Your task to perform on an android device: Open the calendar app, open the side menu, and click the "Day" option Image 0: 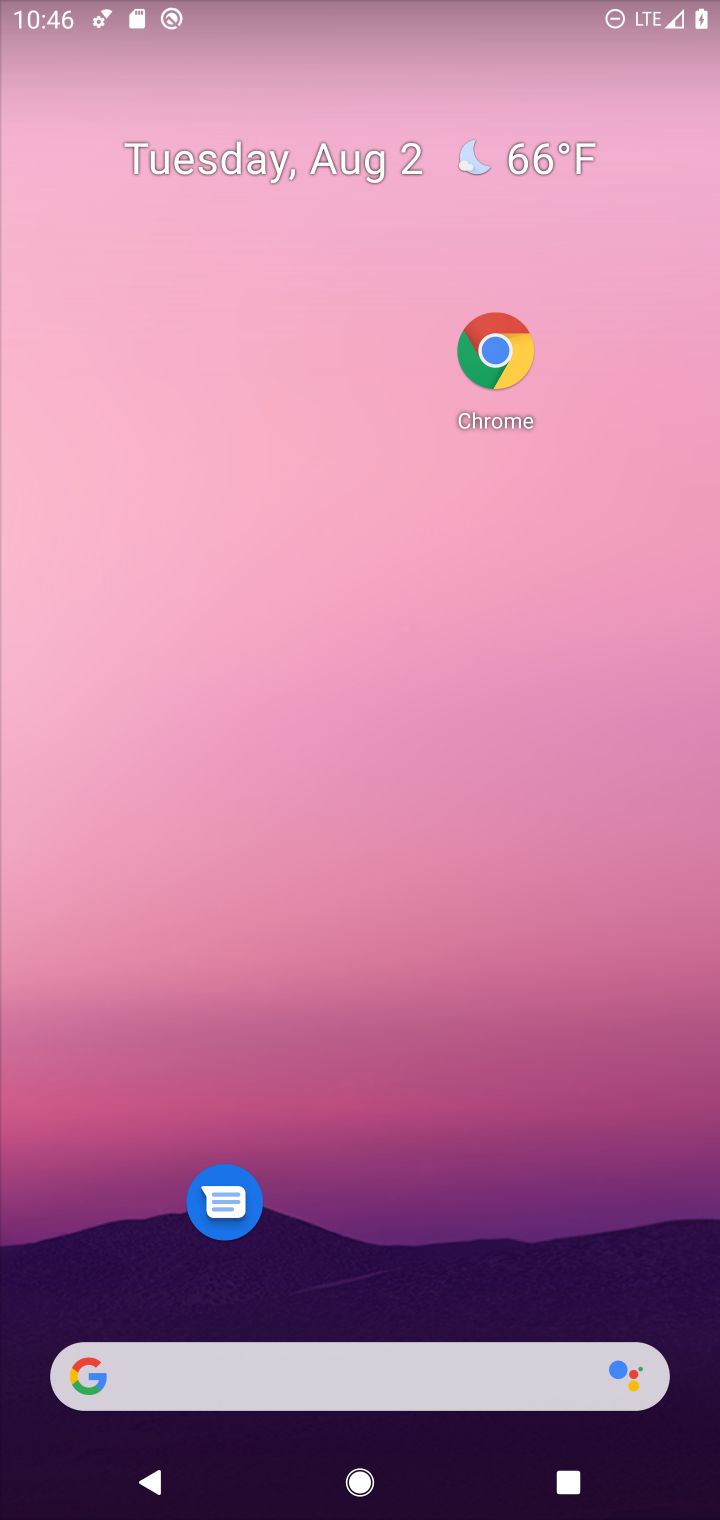
Step 0: drag from (473, 1259) to (347, 5)
Your task to perform on an android device: Open the calendar app, open the side menu, and click the "Day" option Image 1: 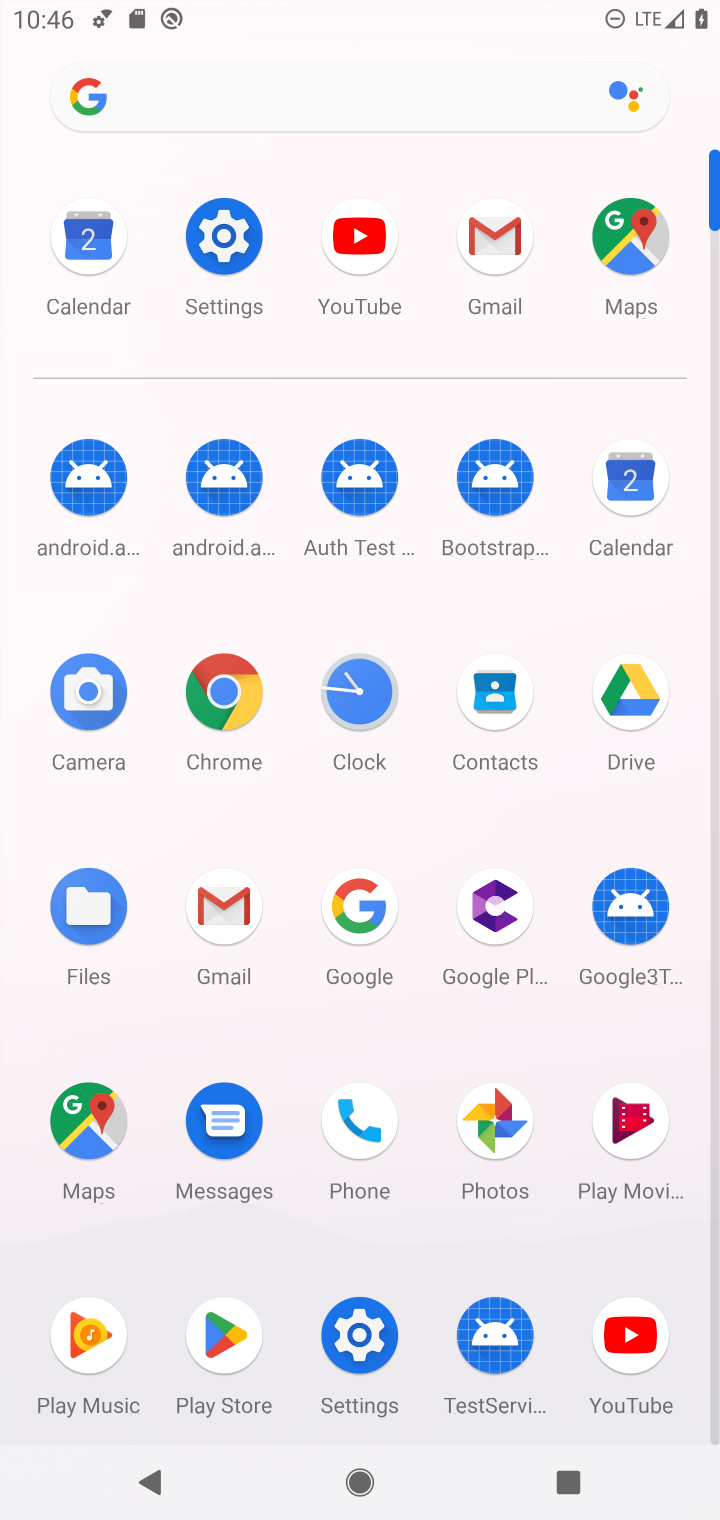
Step 1: click (637, 479)
Your task to perform on an android device: Open the calendar app, open the side menu, and click the "Day" option Image 2: 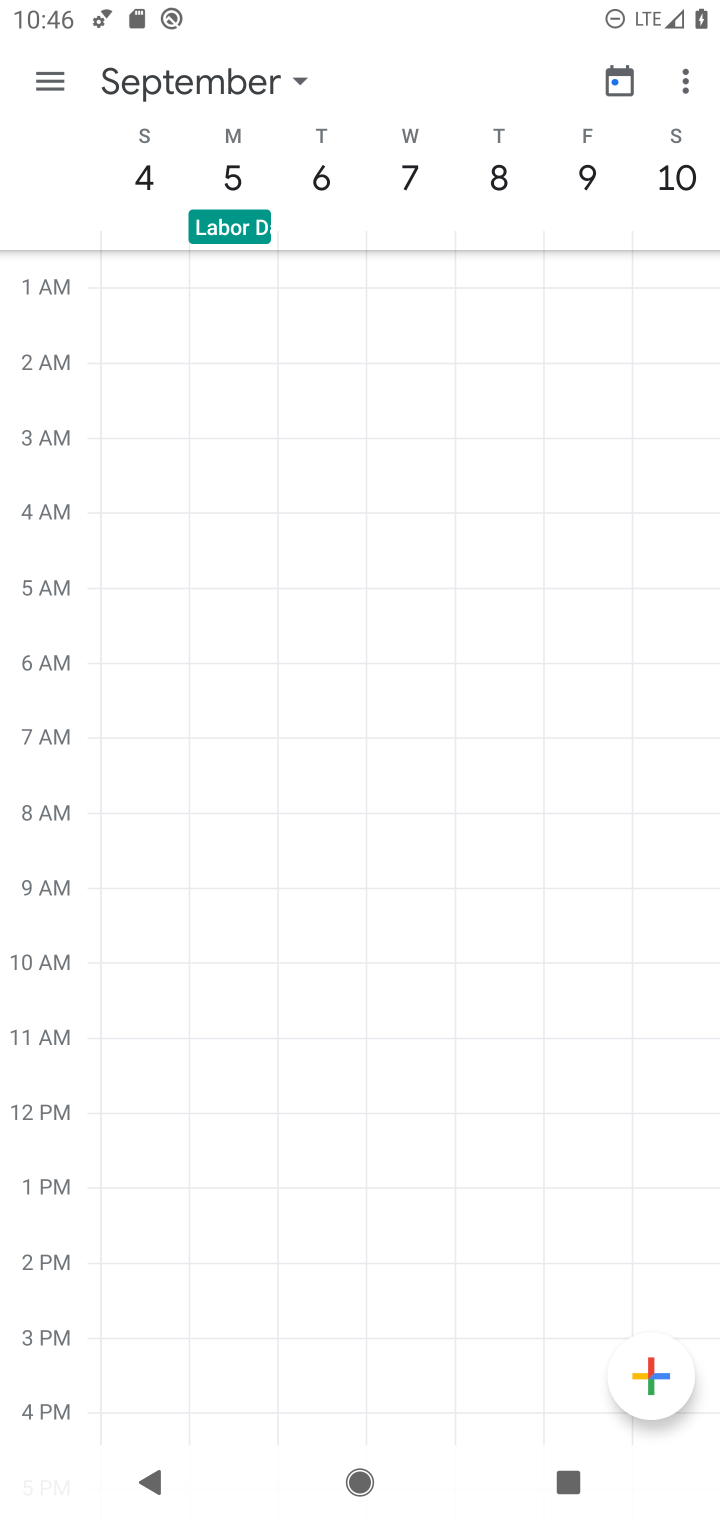
Step 2: click (60, 82)
Your task to perform on an android device: Open the calendar app, open the side menu, and click the "Day" option Image 3: 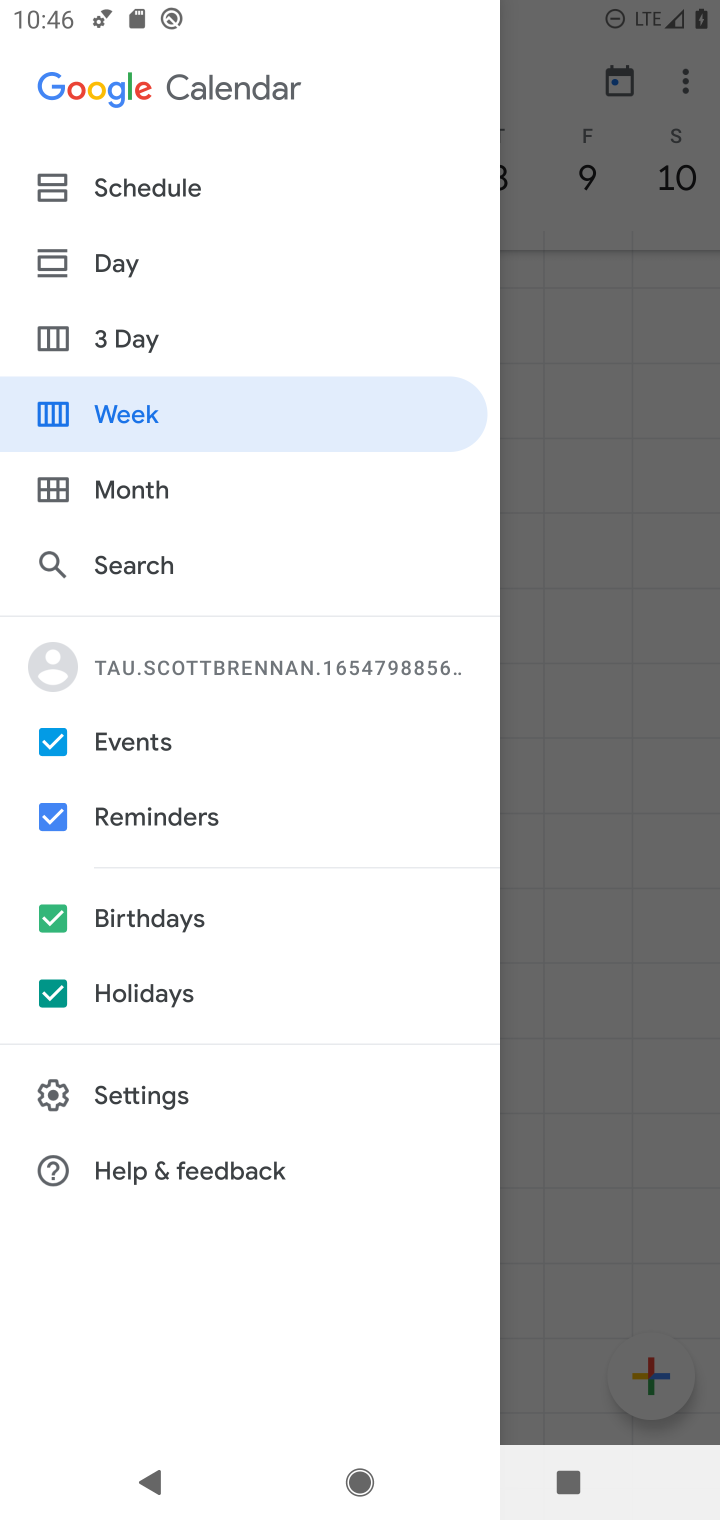
Step 3: click (113, 274)
Your task to perform on an android device: Open the calendar app, open the side menu, and click the "Day" option Image 4: 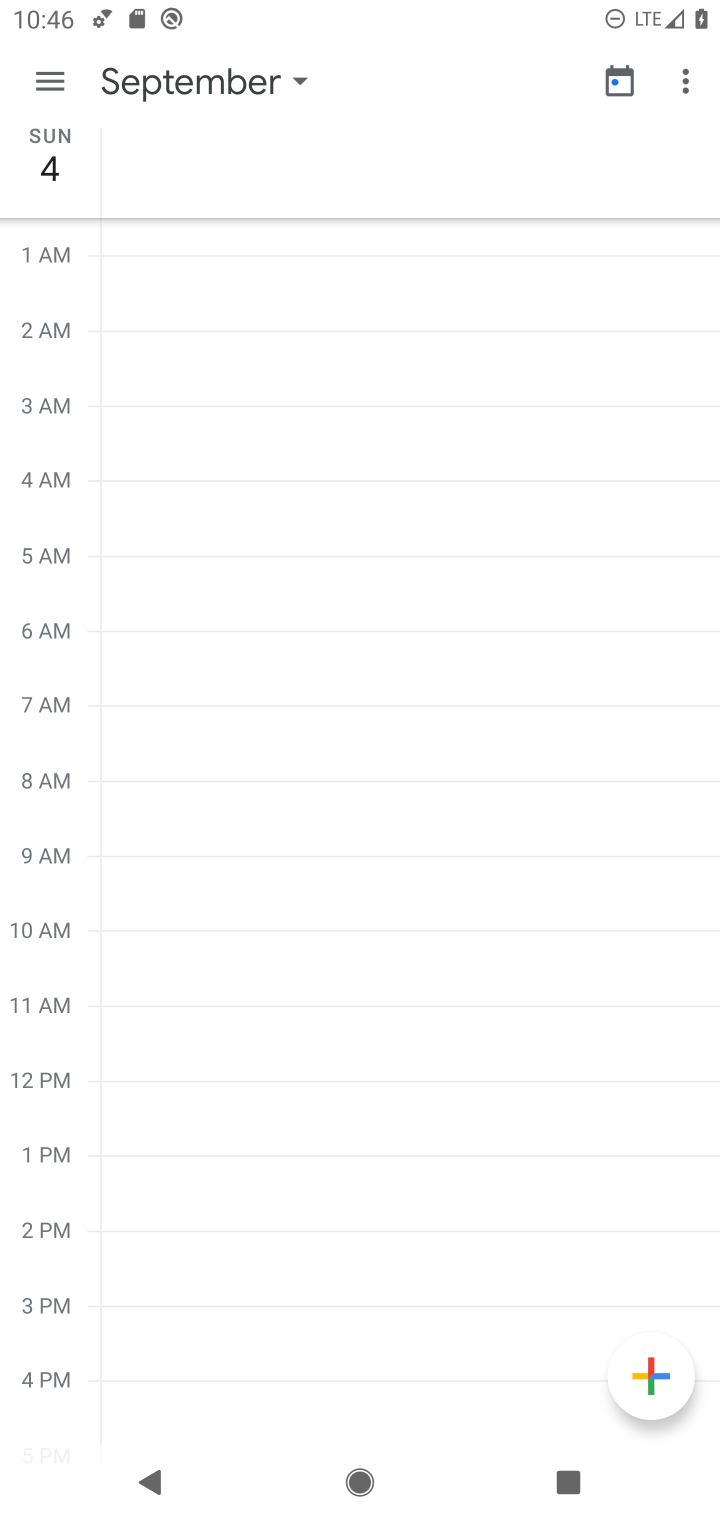
Step 4: task complete